Your task to perform on an android device: check the backup settings in the google photos Image 0: 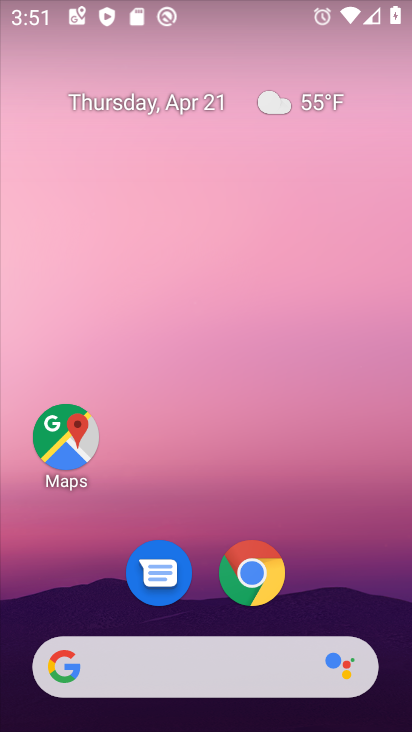
Step 0: drag from (382, 614) to (323, 205)
Your task to perform on an android device: check the backup settings in the google photos Image 1: 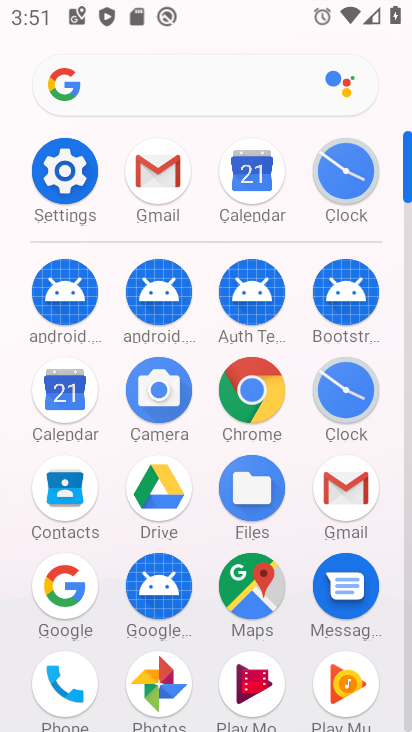
Step 1: click (408, 692)
Your task to perform on an android device: check the backup settings in the google photos Image 2: 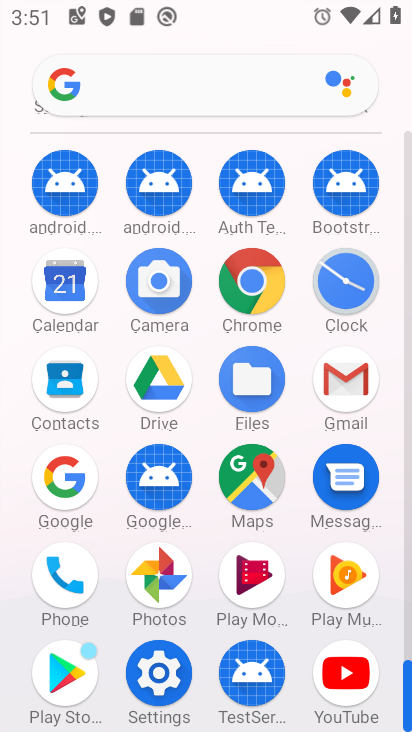
Step 2: click (156, 572)
Your task to perform on an android device: check the backup settings in the google photos Image 3: 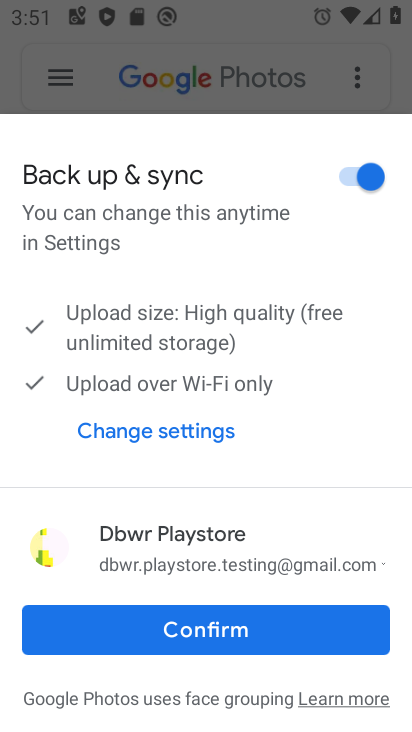
Step 3: click (208, 629)
Your task to perform on an android device: check the backup settings in the google photos Image 4: 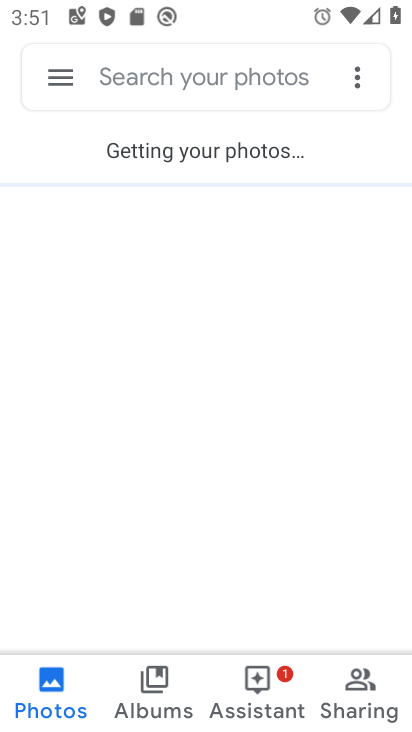
Step 4: click (64, 74)
Your task to perform on an android device: check the backup settings in the google photos Image 5: 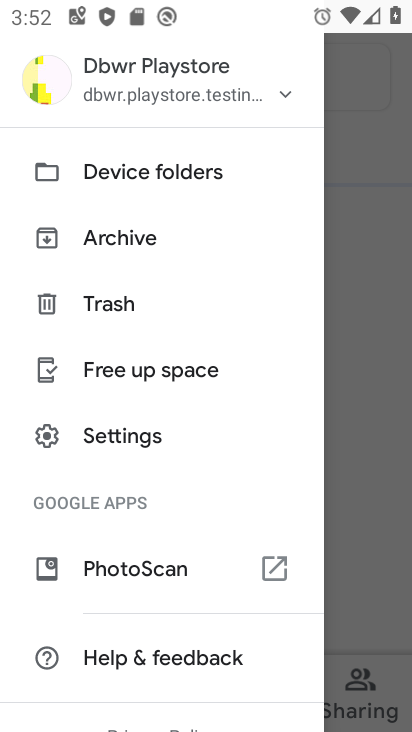
Step 5: click (121, 435)
Your task to perform on an android device: check the backup settings in the google photos Image 6: 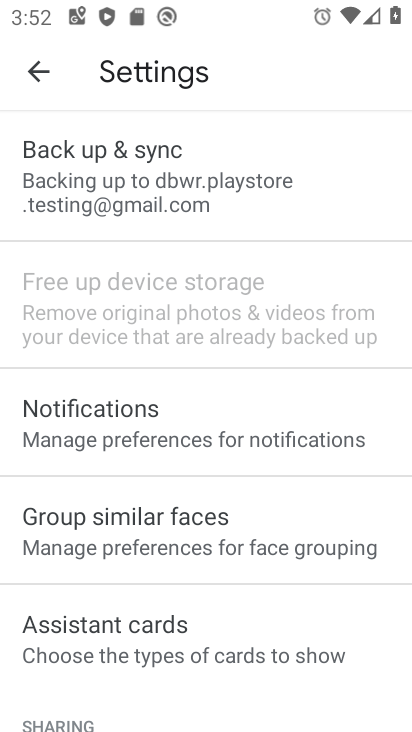
Step 6: click (132, 179)
Your task to perform on an android device: check the backup settings in the google photos Image 7: 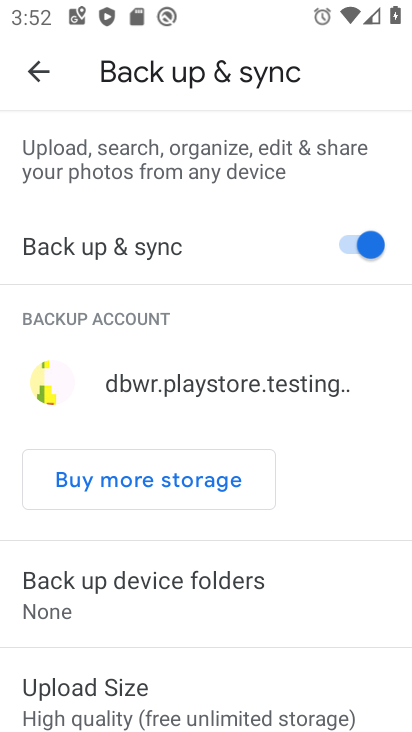
Step 7: task complete